Your task to perform on an android device: turn off picture-in-picture Image 0: 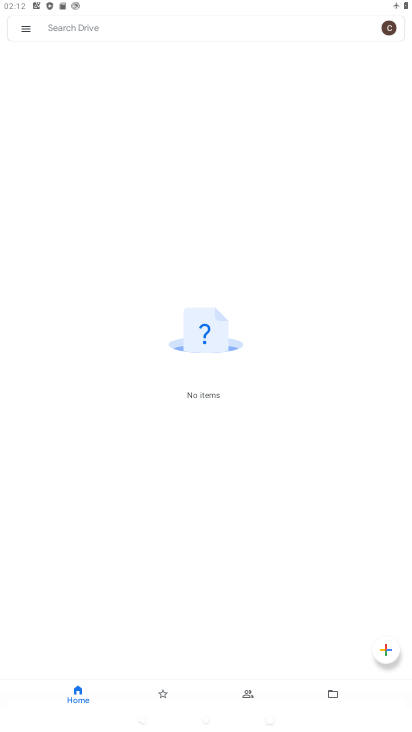
Step 0: press home button
Your task to perform on an android device: turn off picture-in-picture Image 1: 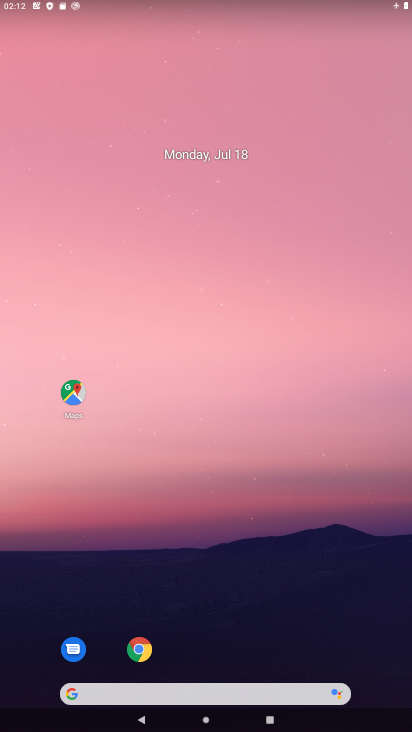
Step 1: click (146, 653)
Your task to perform on an android device: turn off picture-in-picture Image 2: 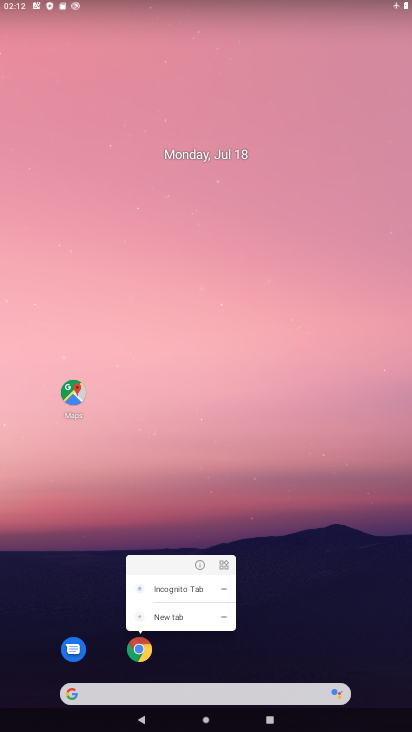
Step 2: click (206, 564)
Your task to perform on an android device: turn off picture-in-picture Image 3: 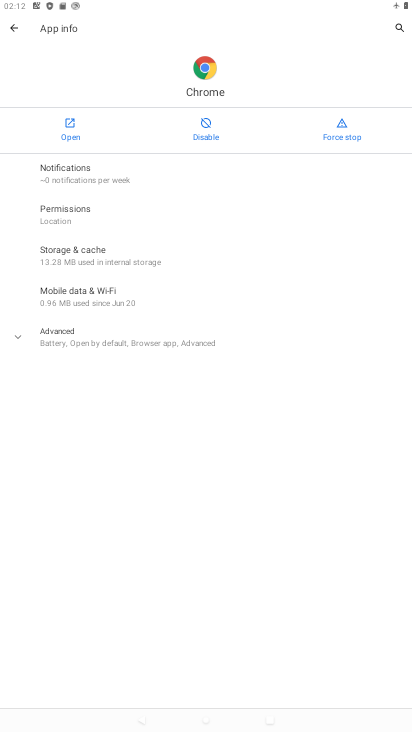
Step 3: click (208, 335)
Your task to perform on an android device: turn off picture-in-picture Image 4: 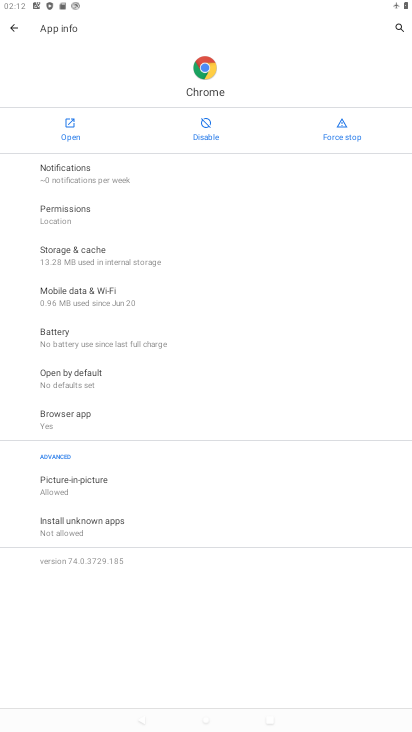
Step 4: click (88, 481)
Your task to perform on an android device: turn off picture-in-picture Image 5: 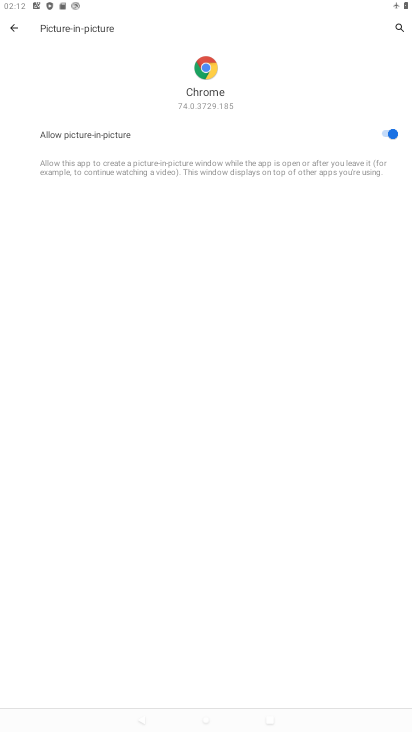
Step 5: click (389, 135)
Your task to perform on an android device: turn off picture-in-picture Image 6: 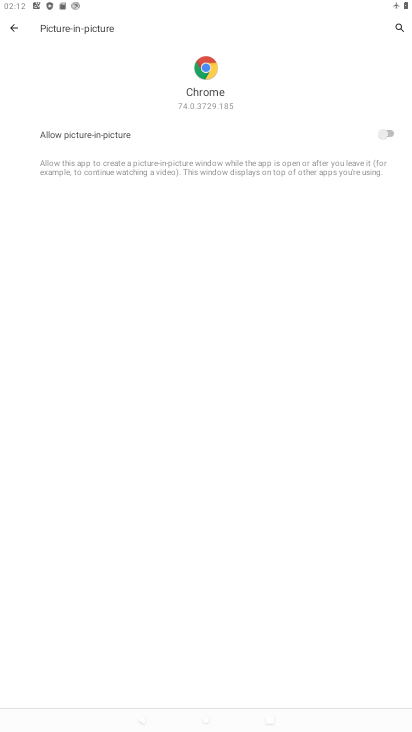
Step 6: task complete